Your task to perform on an android device: open app "DoorDash - Dasher" (install if not already installed), go to login, and select forgot password Image 0: 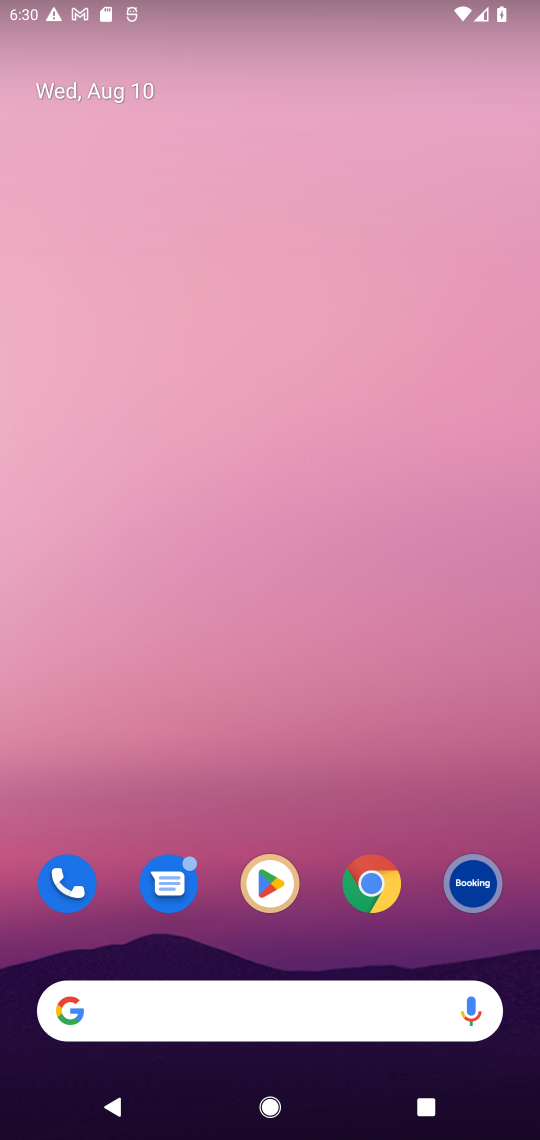
Step 0: drag from (248, 809) to (260, 187)
Your task to perform on an android device: open app "DoorDash - Dasher" (install if not already installed), go to login, and select forgot password Image 1: 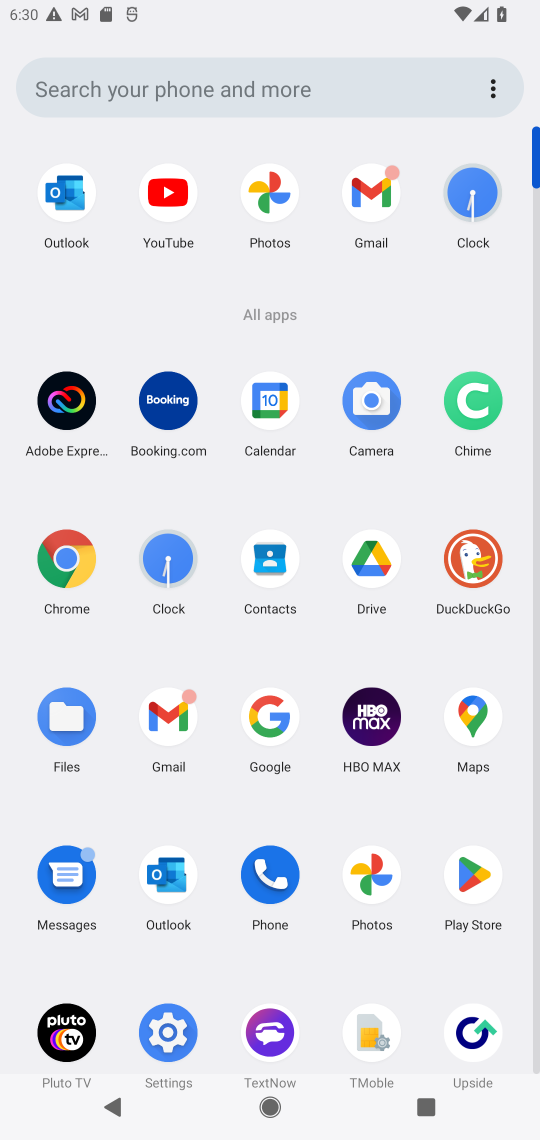
Step 1: click (465, 891)
Your task to perform on an android device: open app "DoorDash - Dasher" (install if not already installed), go to login, and select forgot password Image 2: 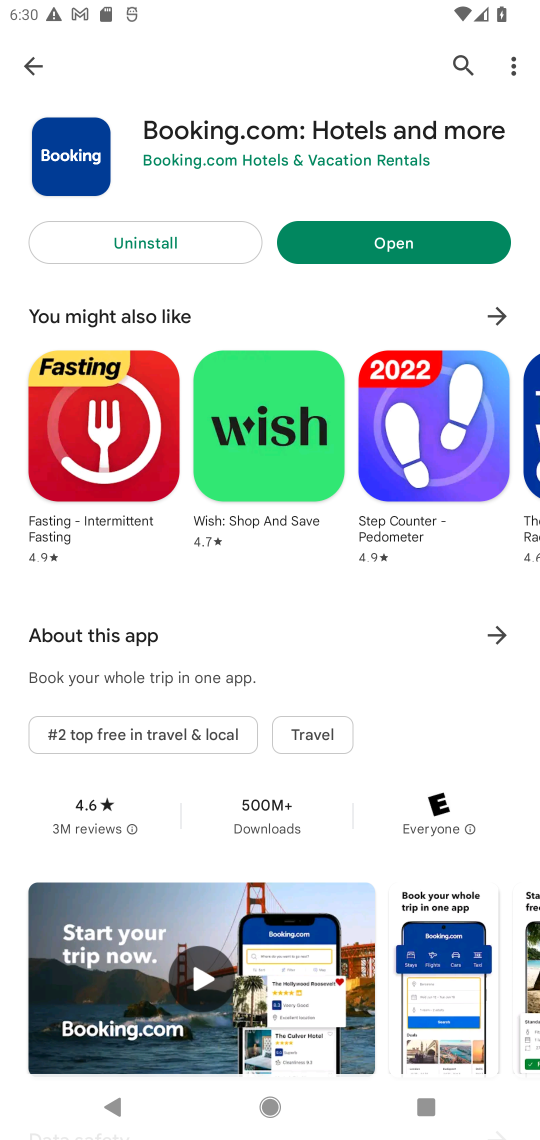
Step 2: click (470, 63)
Your task to perform on an android device: open app "DoorDash - Dasher" (install if not already installed), go to login, and select forgot password Image 3: 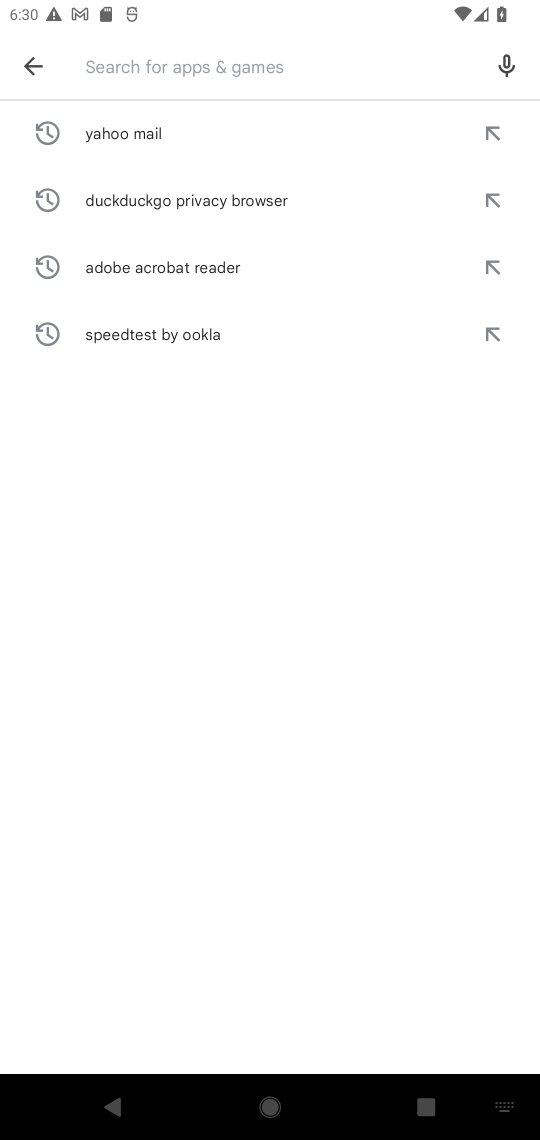
Step 3: type "DoorDash - Dasher"
Your task to perform on an android device: open app "DoorDash - Dasher" (install if not already installed), go to login, and select forgot password Image 4: 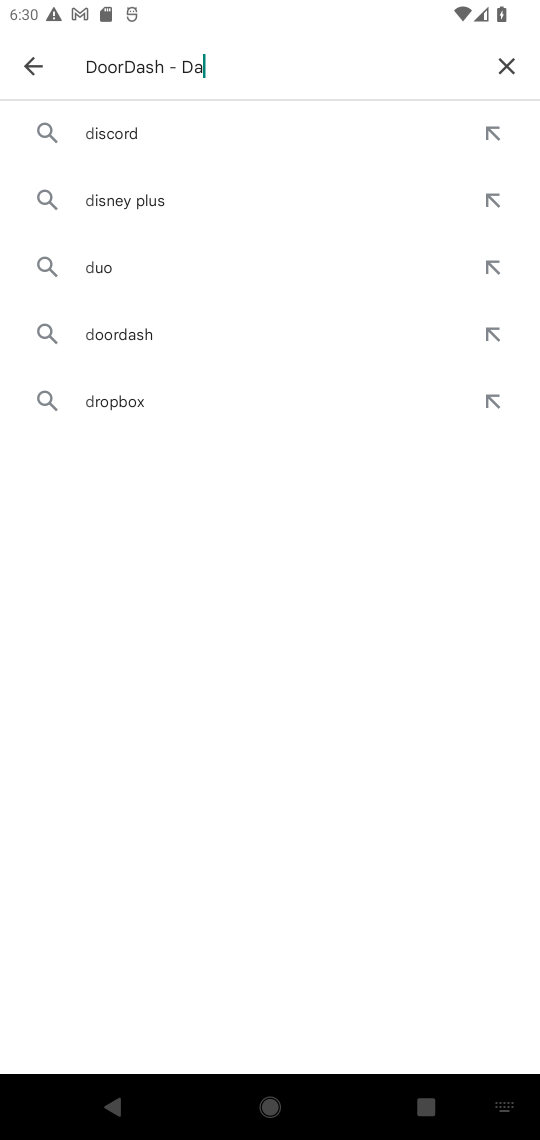
Step 4: type ""
Your task to perform on an android device: open app "DoorDash - Dasher" (install if not already installed), go to login, and select forgot password Image 5: 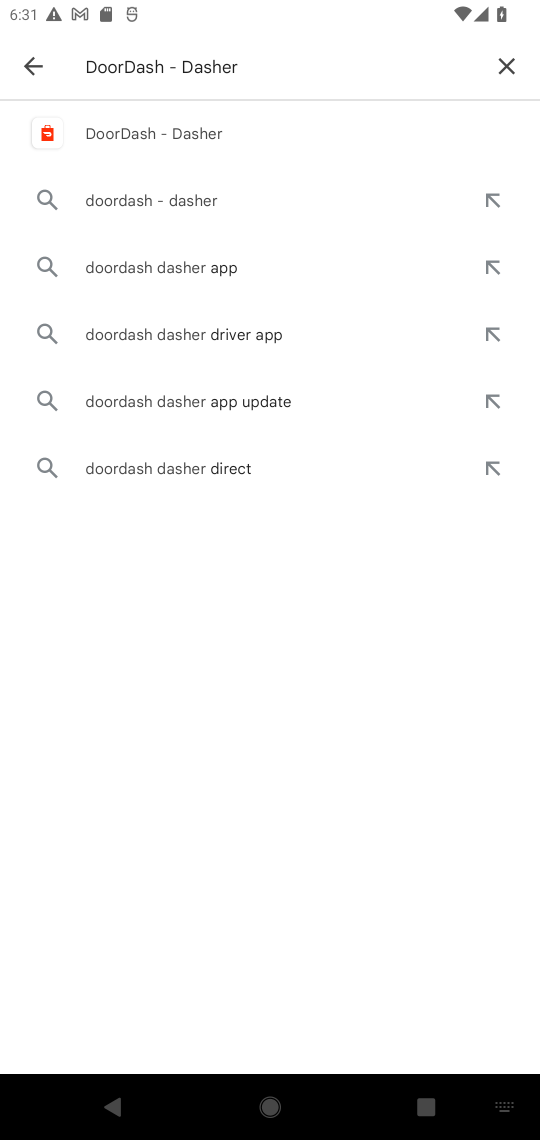
Step 5: click (211, 130)
Your task to perform on an android device: open app "DoorDash - Dasher" (install if not already installed), go to login, and select forgot password Image 6: 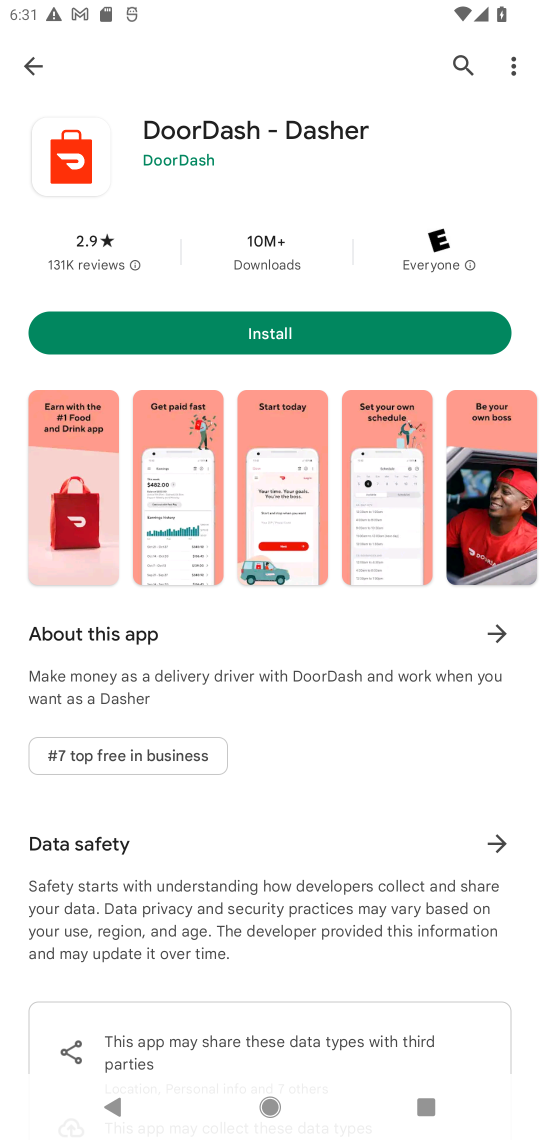
Step 6: click (257, 343)
Your task to perform on an android device: open app "DoorDash - Dasher" (install if not already installed), go to login, and select forgot password Image 7: 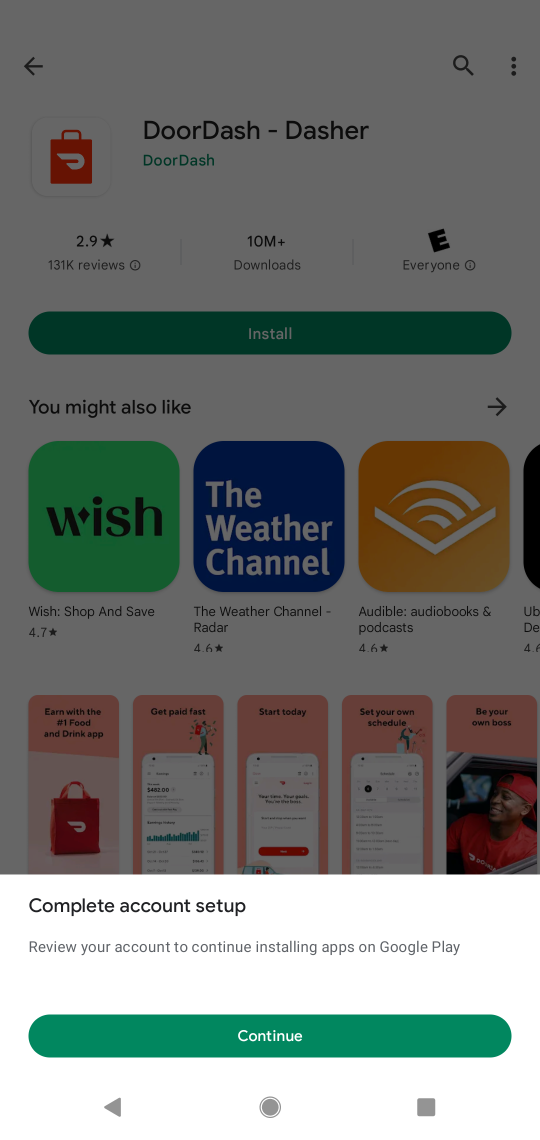
Step 7: click (290, 1024)
Your task to perform on an android device: open app "DoorDash - Dasher" (install if not already installed), go to login, and select forgot password Image 8: 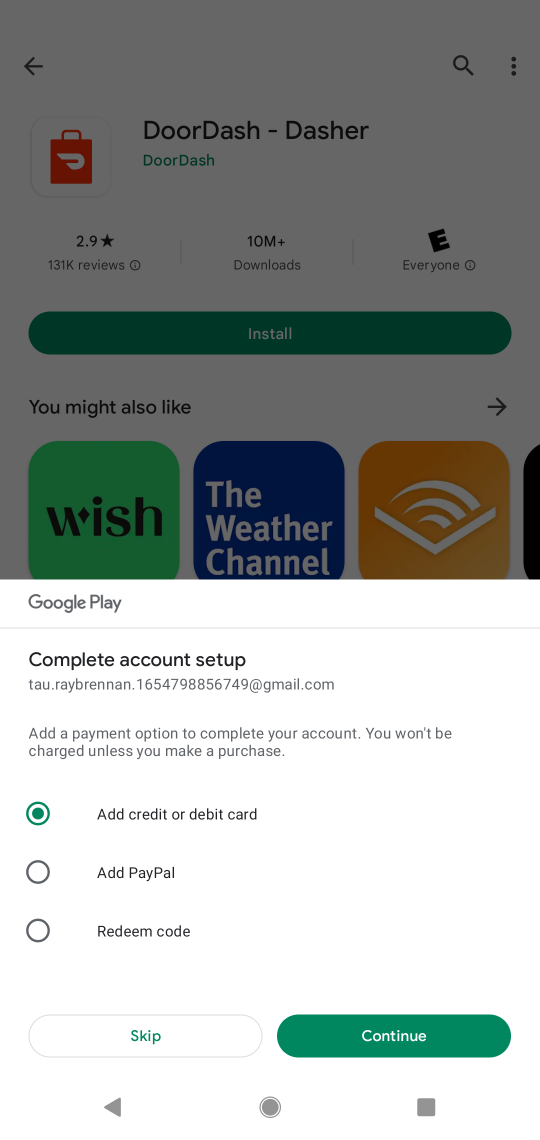
Step 8: click (182, 1025)
Your task to perform on an android device: open app "DoorDash - Dasher" (install if not already installed), go to login, and select forgot password Image 9: 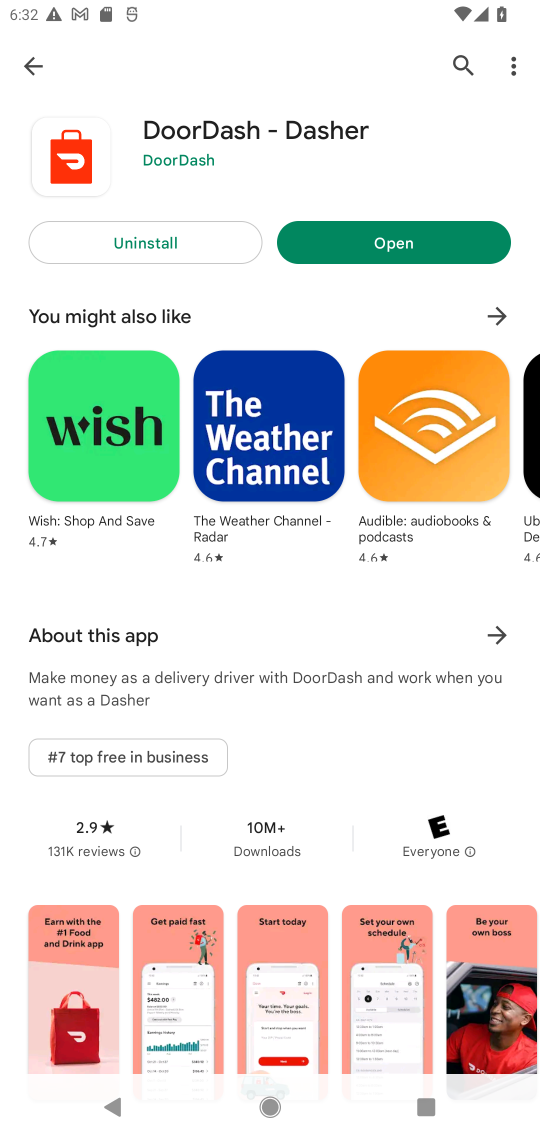
Step 9: click (402, 230)
Your task to perform on an android device: open app "DoorDash - Dasher" (install if not already installed), go to login, and select forgot password Image 10: 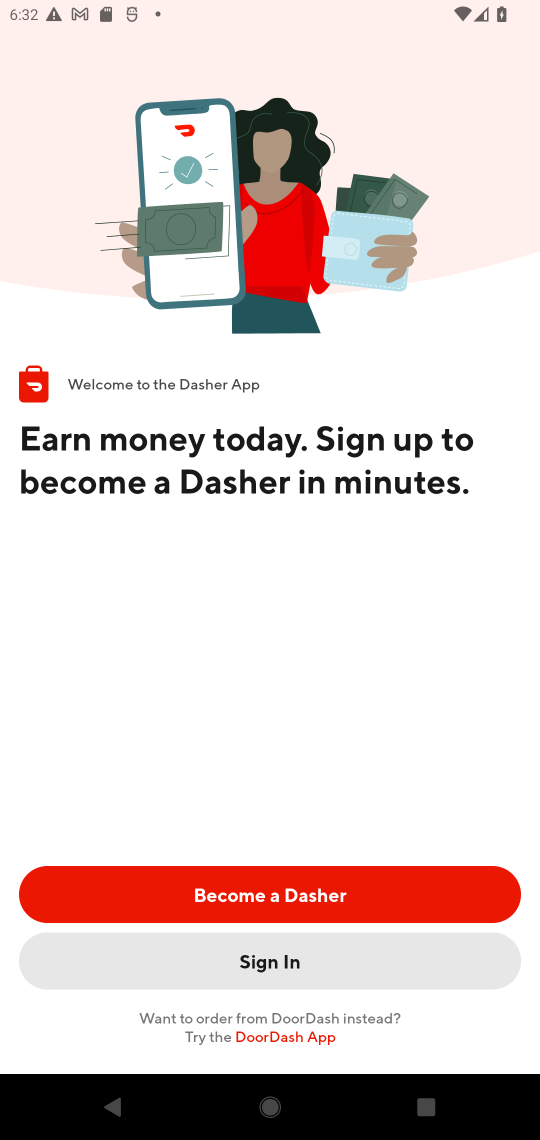
Step 10: task complete